Your task to perform on an android device: empty trash in the gmail app Image 0: 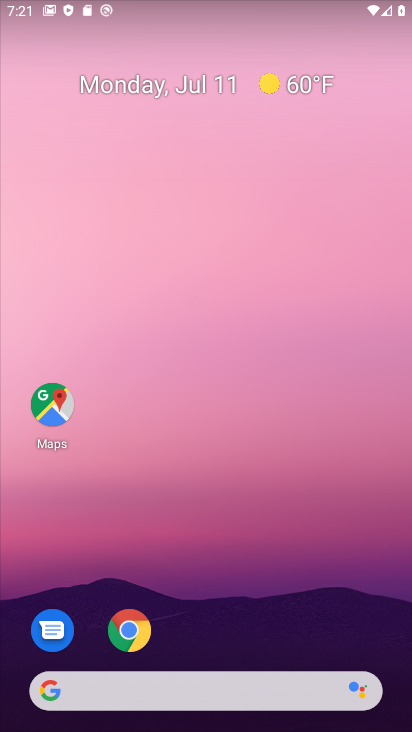
Step 0: drag from (377, 631) to (333, 122)
Your task to perform on an android device: empty trash in the gmail app Image 1: 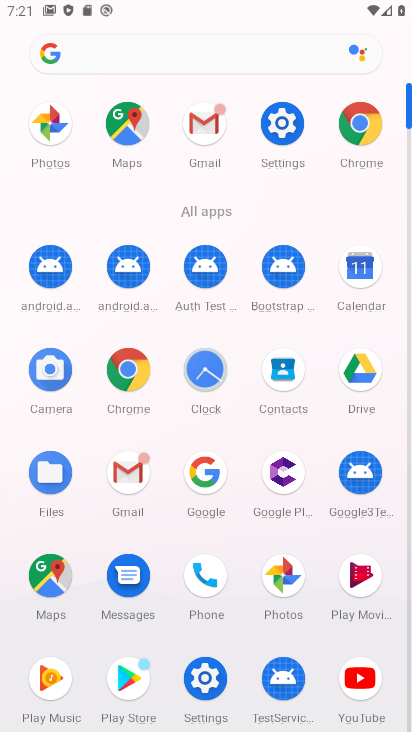
Step 1: click (126, 475)
Your task to perform on an android device: empty trash in the gmail app Image 2: 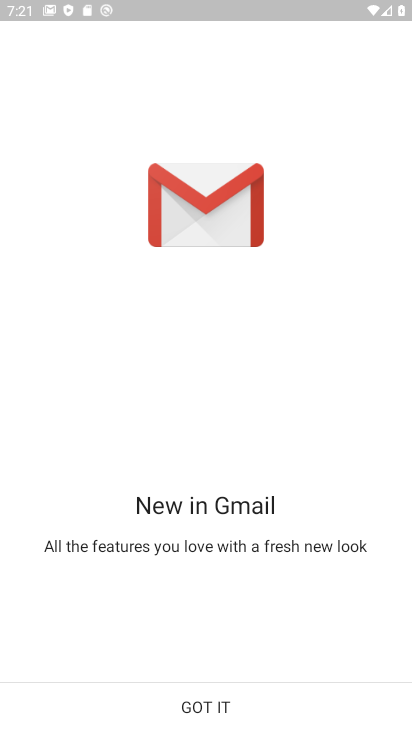
Step 2: click (192, 710)
Your task to perform on an android device: empty trash in the gmail app Image 3: 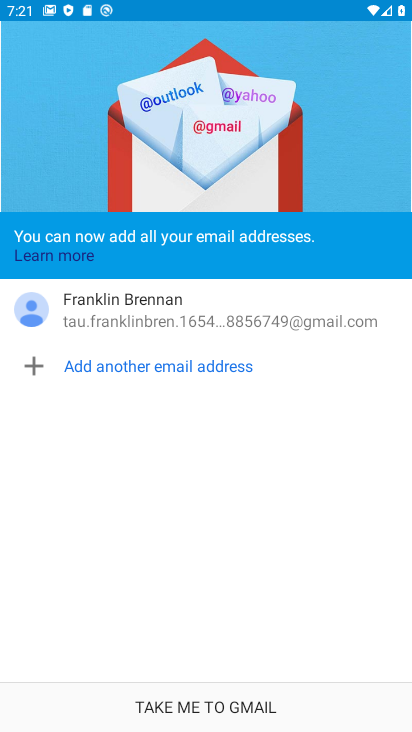
Step 3: click (201, 711)
Your task to perform on an android device: empty trash in the gmail app Image 4: 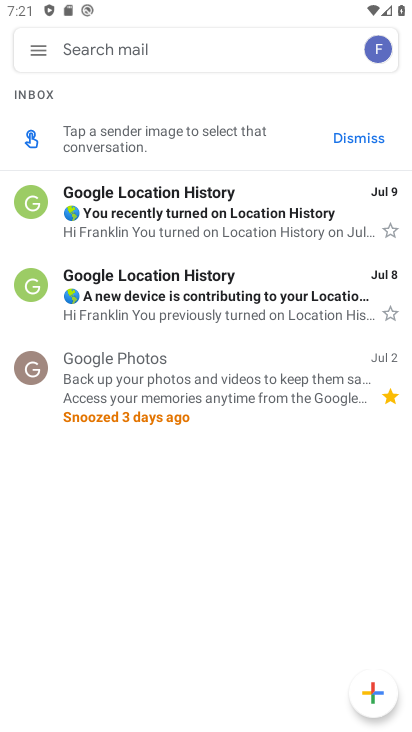
Step 4: click (46, 45)
Your task to perform on an android device: empty trash in the gmail app Image 5: 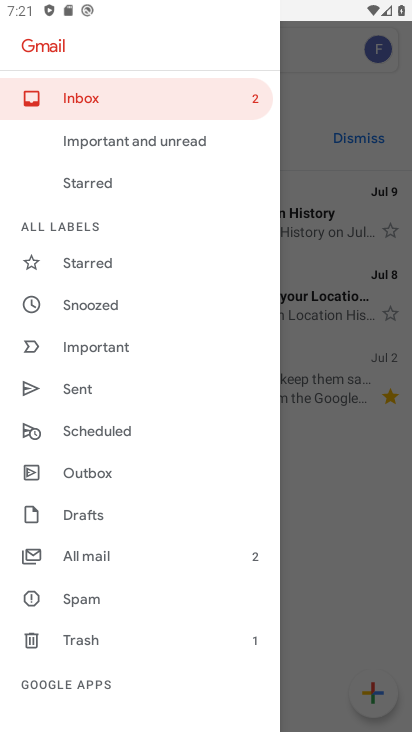
Step 5: click (85, 645)
Your task to perform on an android device: empty trash in the gmail app Image 6: 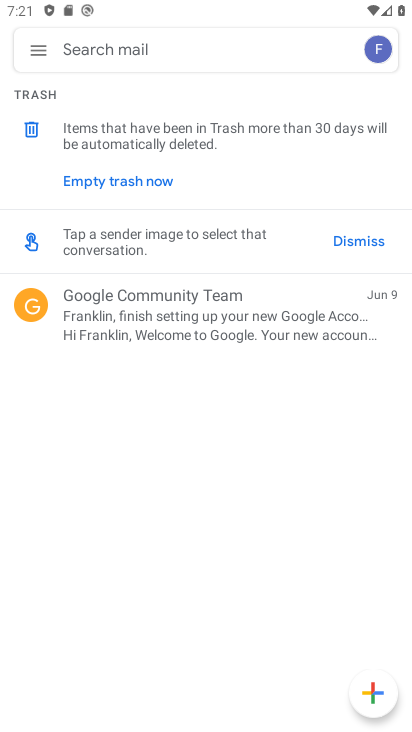
Step 6: click (90, 179)
Your task to perform on an android device: empty trash in the gmail app Image 7: 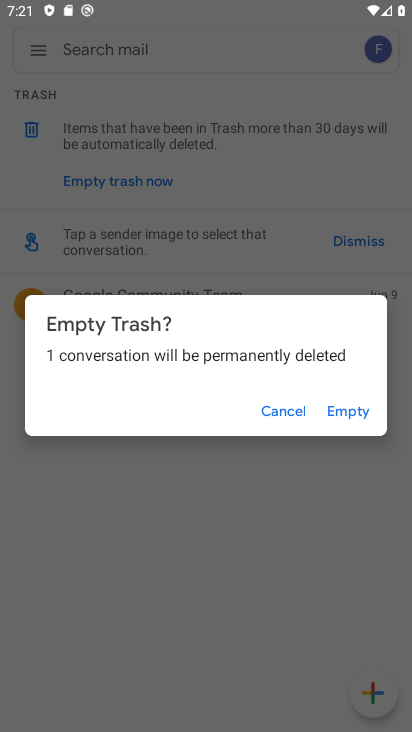
Step 7: click (353, 415)
Your task to perform on an android device: empty trash in the gmail app Image 8: 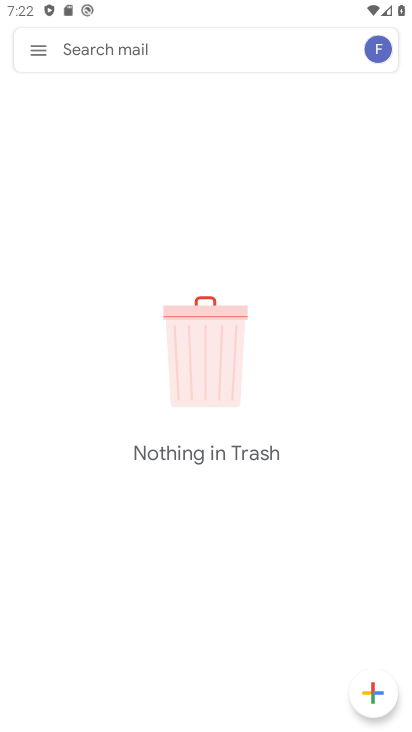
Step 8: task complete